Your task to perform on an android device: open a bookmark in the chrome app Image 0: 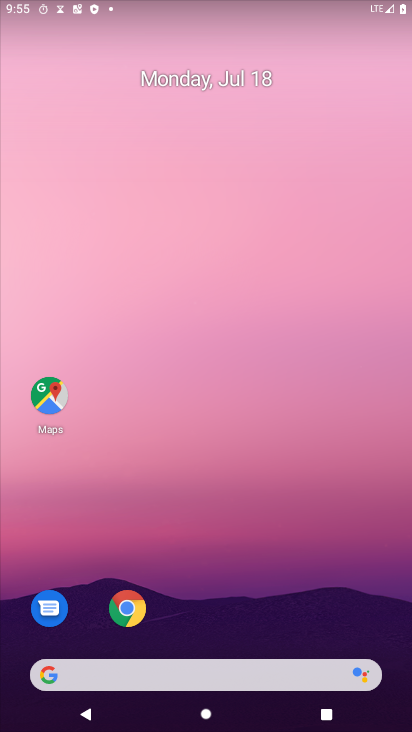
Step 0: click (123, 612)
Your task to perform on an android device: open a bookmark in the chrome app Image 1: 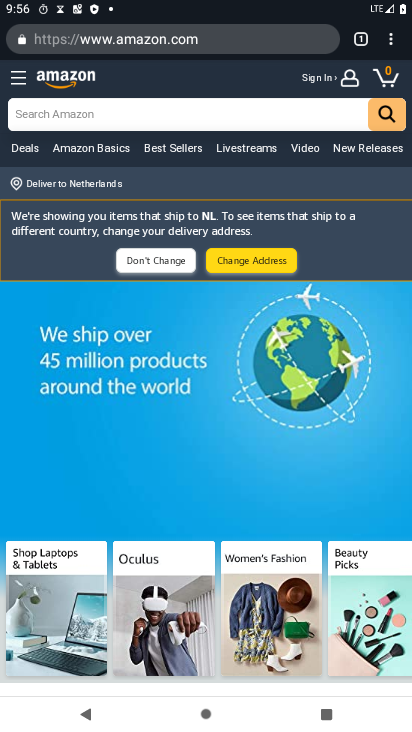
Step 1: click (392, 37)
Your task to perform on an android device: open a bookmark in the chrome app Image 2: 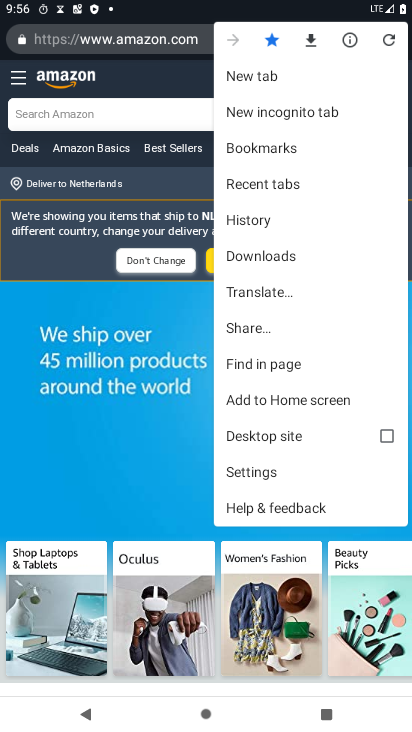
Step 2: click (306, 145)
Your task to perform on an android device: open a bookmark in the chrome app Image 3: 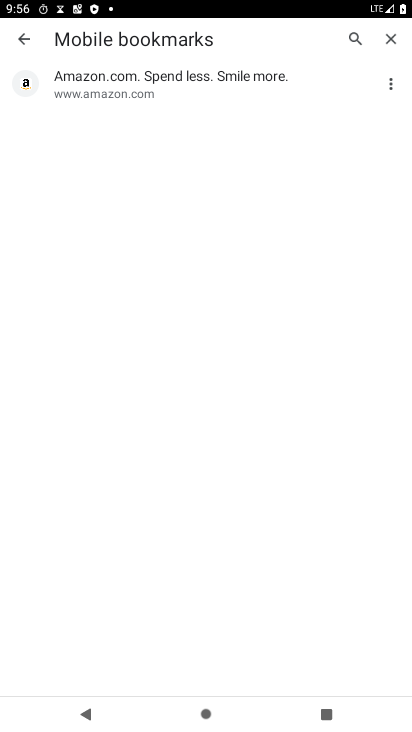
Step 3: click (195, 82)
Your task to perform on an android device: open a bookmark in the chrome app Image 4: 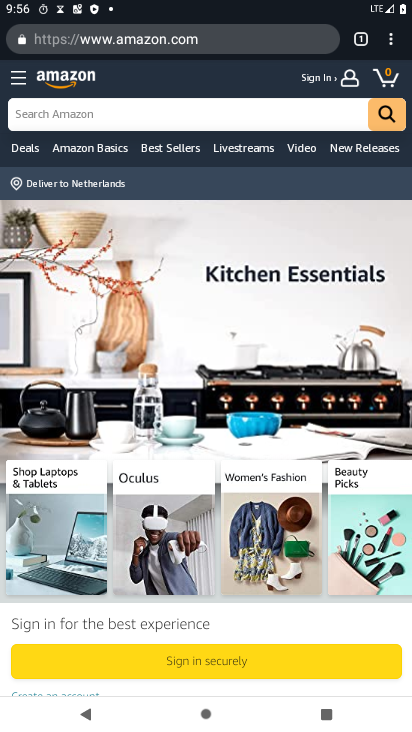
Step 4: task complete